Your task to perform on an android device: open app "Adobe Express: Graphic Design" Image 0: 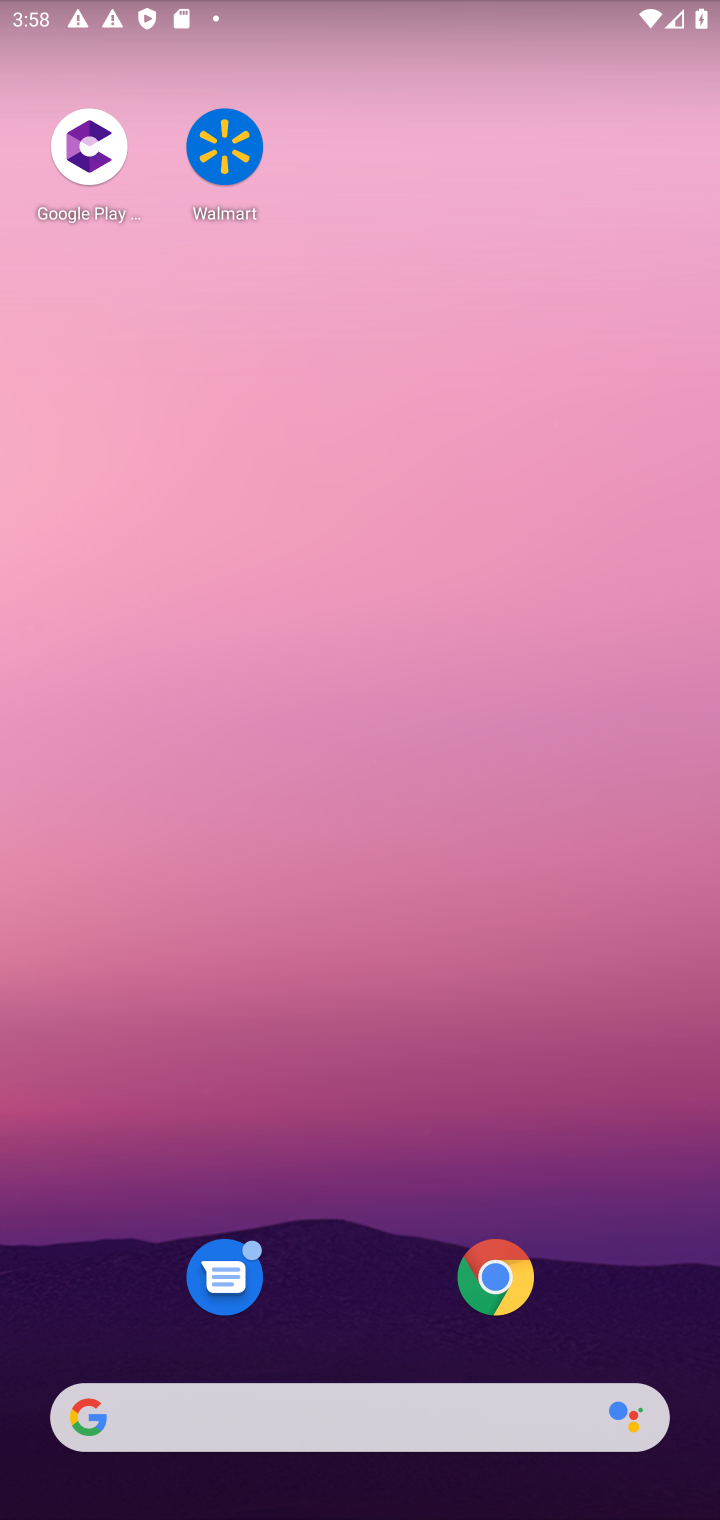
Step 0: drag from (334, 449) to (532, 12)
Your task to perform on an android device: open app "Adobe Express: Graphic Design" Image 1: 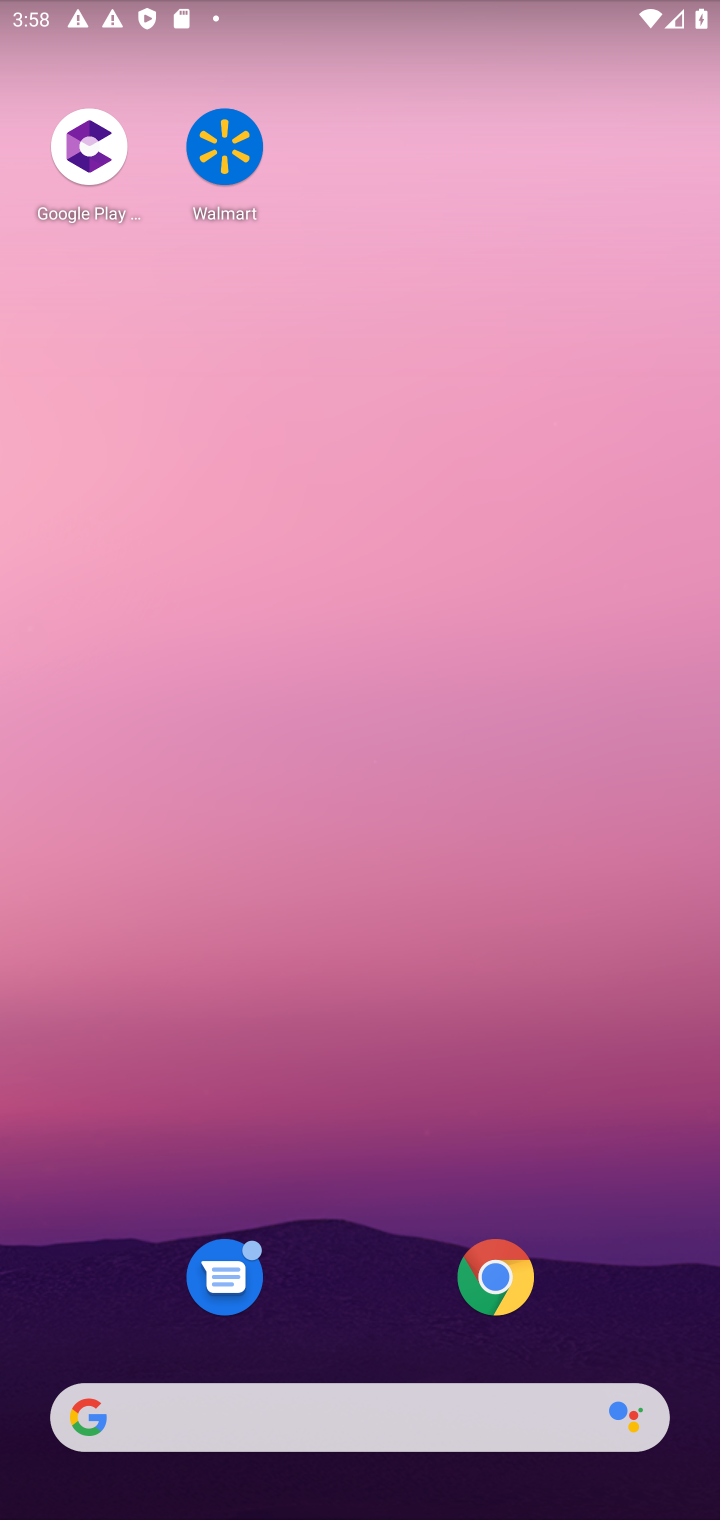
Step 1: drag from (381, 1177) to (429, 39)
Your task to perform on an android device: open app "Adobe Express: Graphic Design" Image 2: 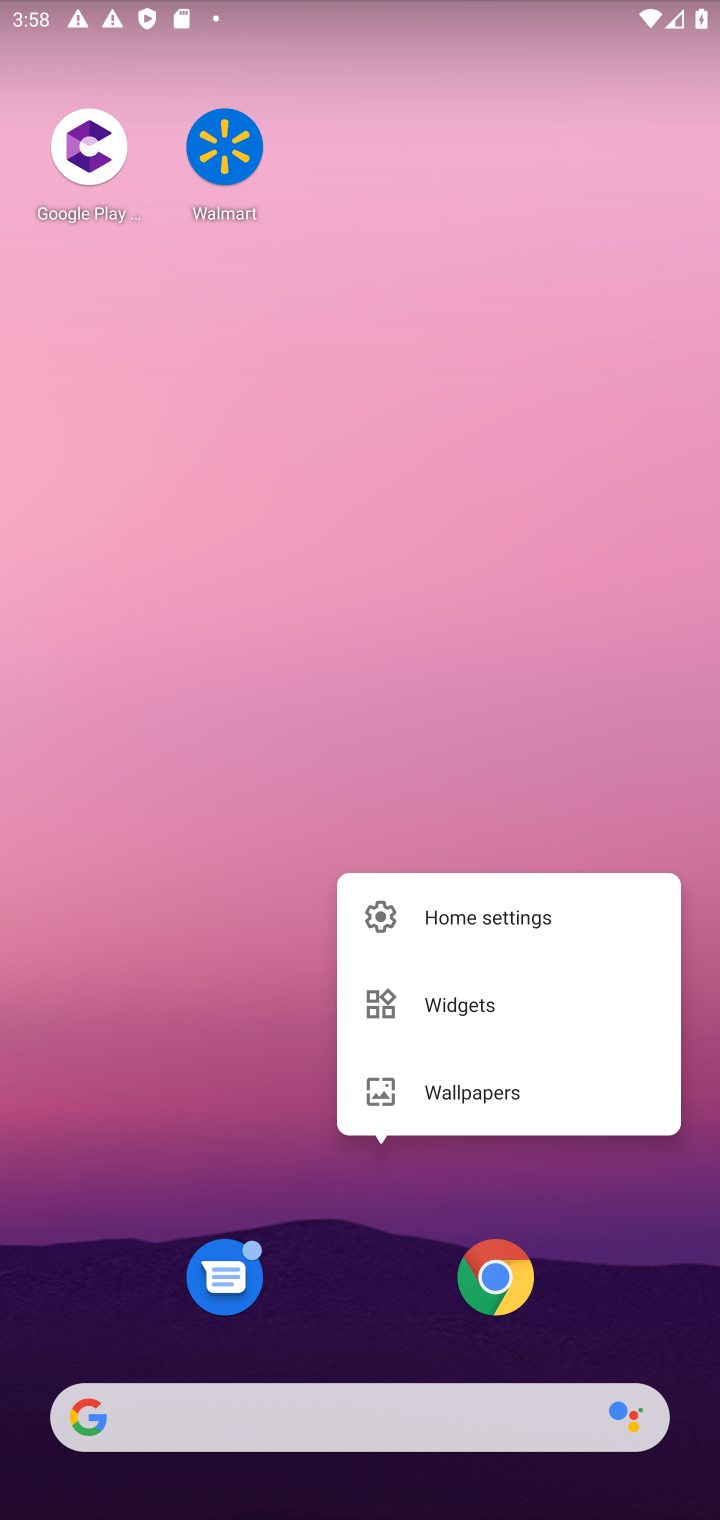
Step 2: drag from (288, 1053) to (370, 17)
Your task to perform on an android device: open app "Adobe Express: Graphic Design" Image 3: 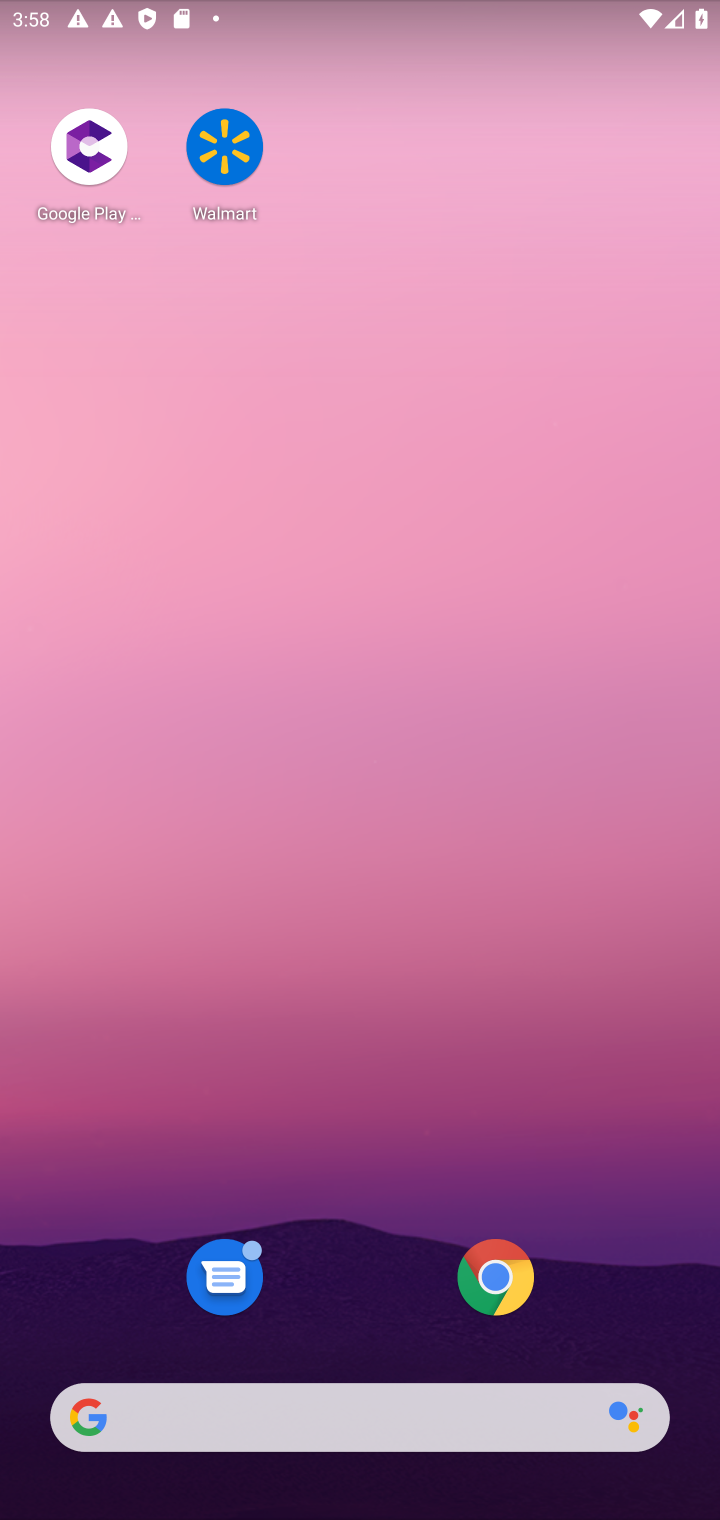
Step 3: drag from (334, 1341) to (430, 24)
Your task to perform on an android device: open app "Adobe Express: Graphic Design" Image 4: 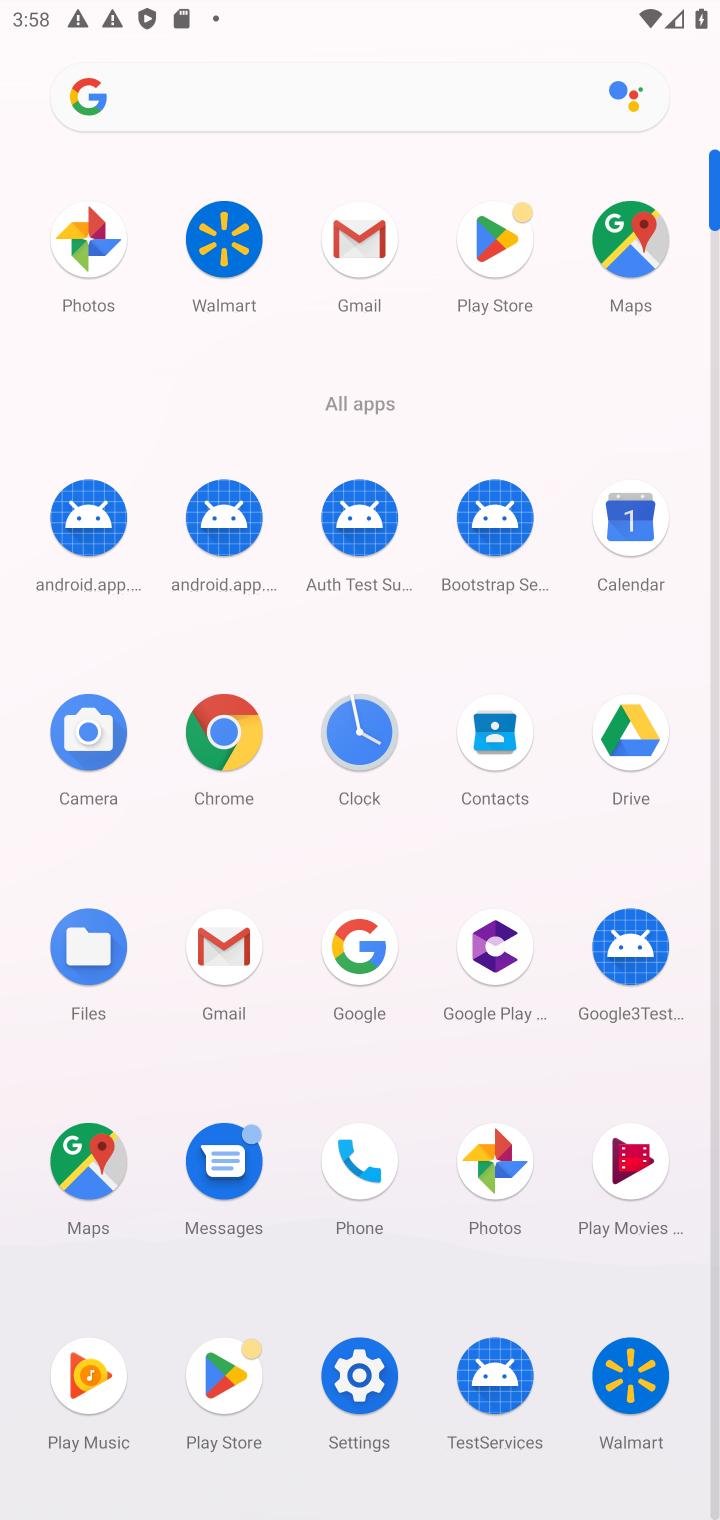
Step 4: click (225, 1401)
Your task to perform on an android device: open app "Adobe Express: Graphic Design" Image 5: 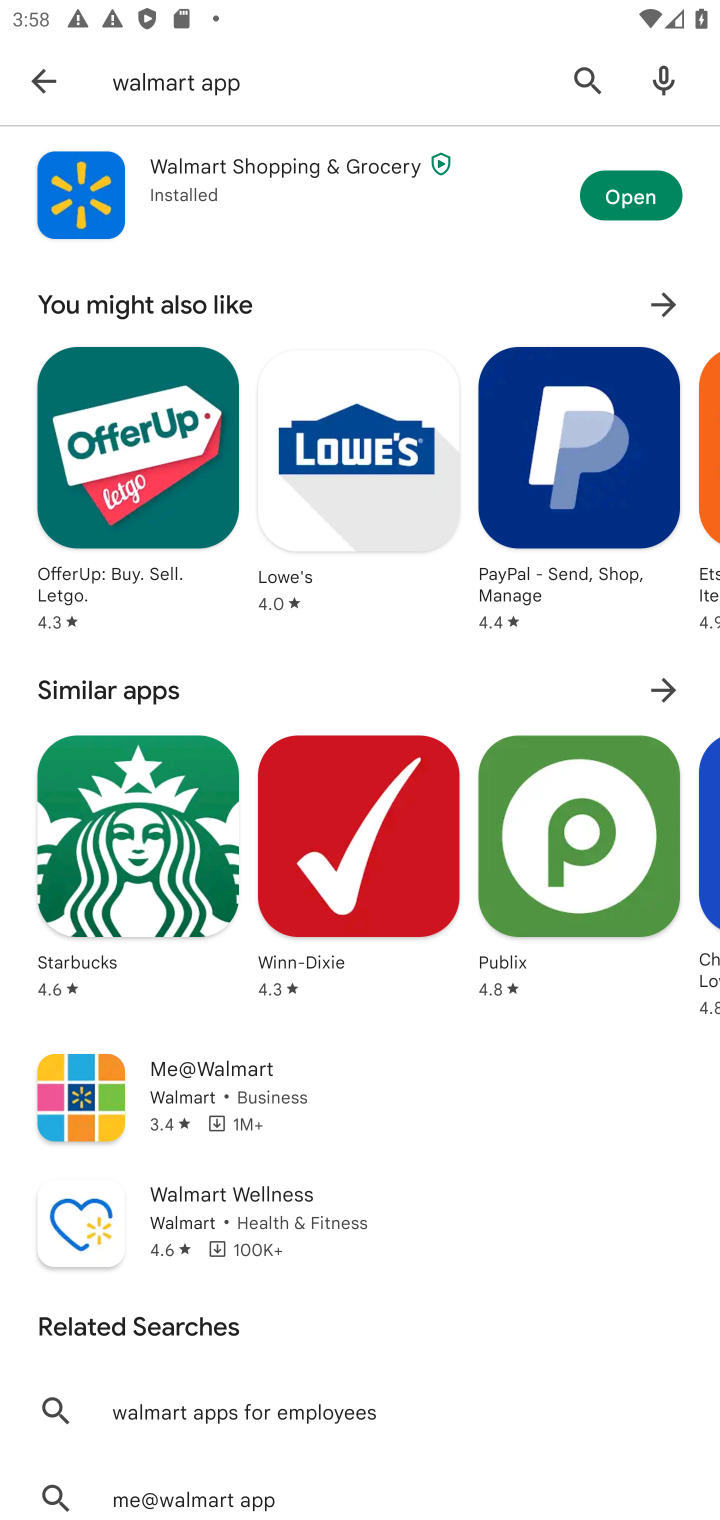
Step 5: click (262, 75)
Your task to perform on an android device: open app "Adobe Express: Graphic Design" Image 6: 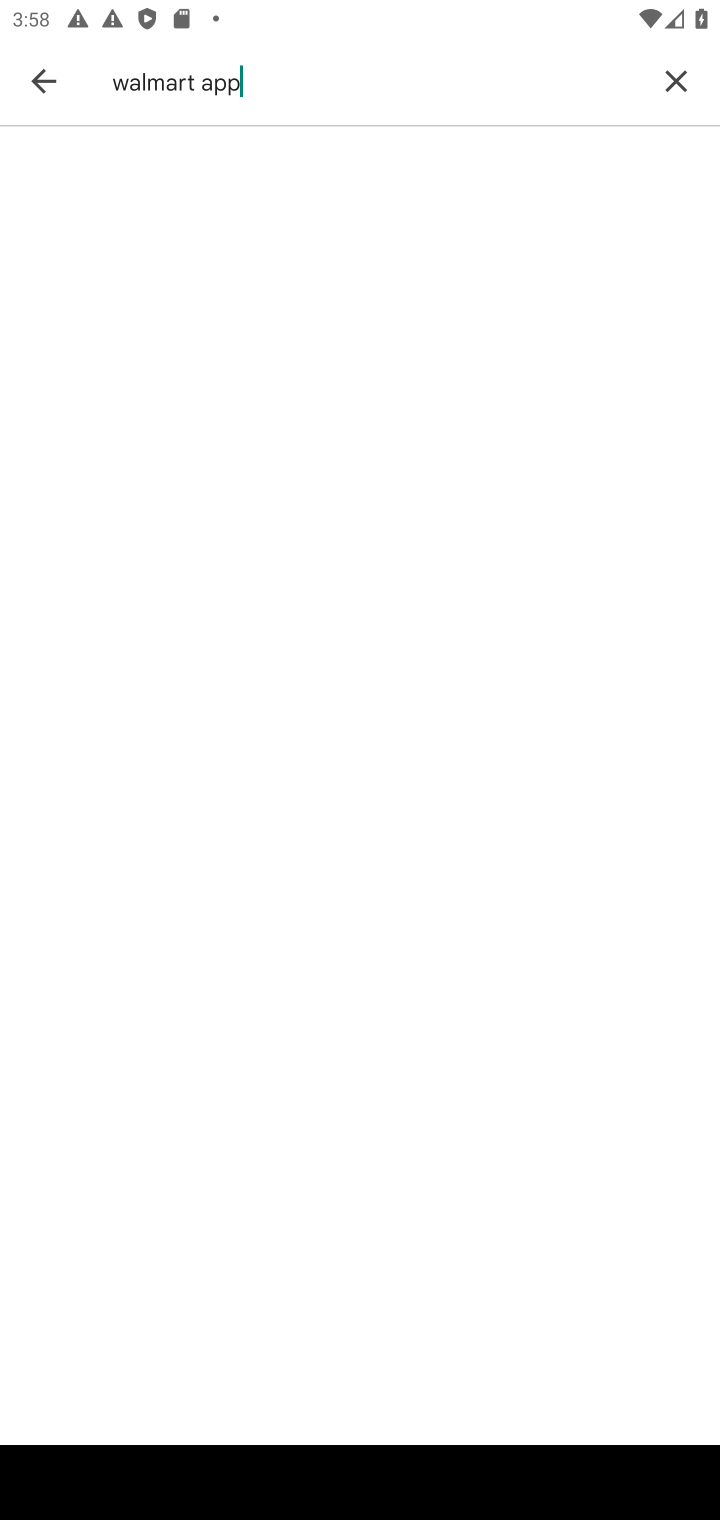
Step 6: click (701, 68)
Your task to perform on an android device: open app "Adobe Express: Graphic Design" Image 7: 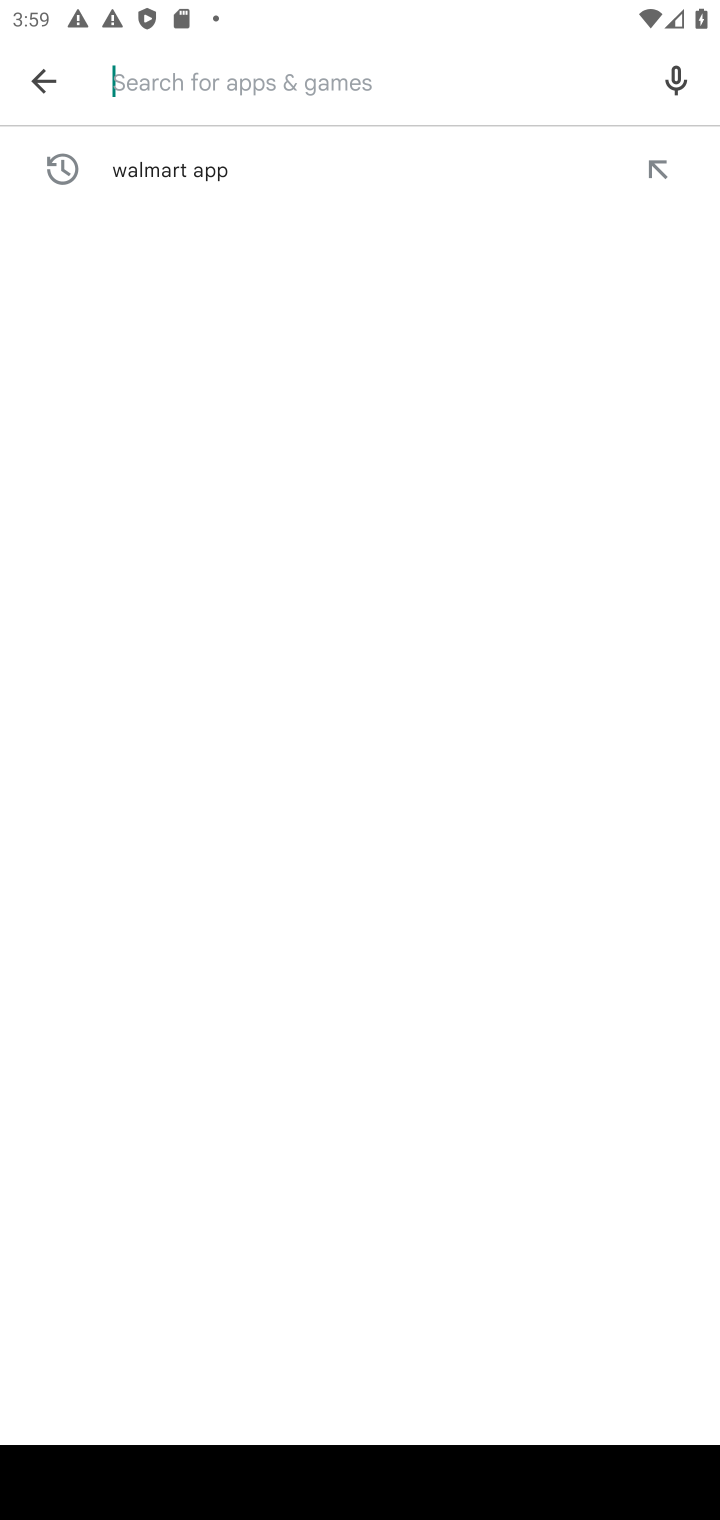
Step 7: type "Adobe Express"
Your task to perform on an android device: open app "Adobe Express: Graphic Design" Image 8: 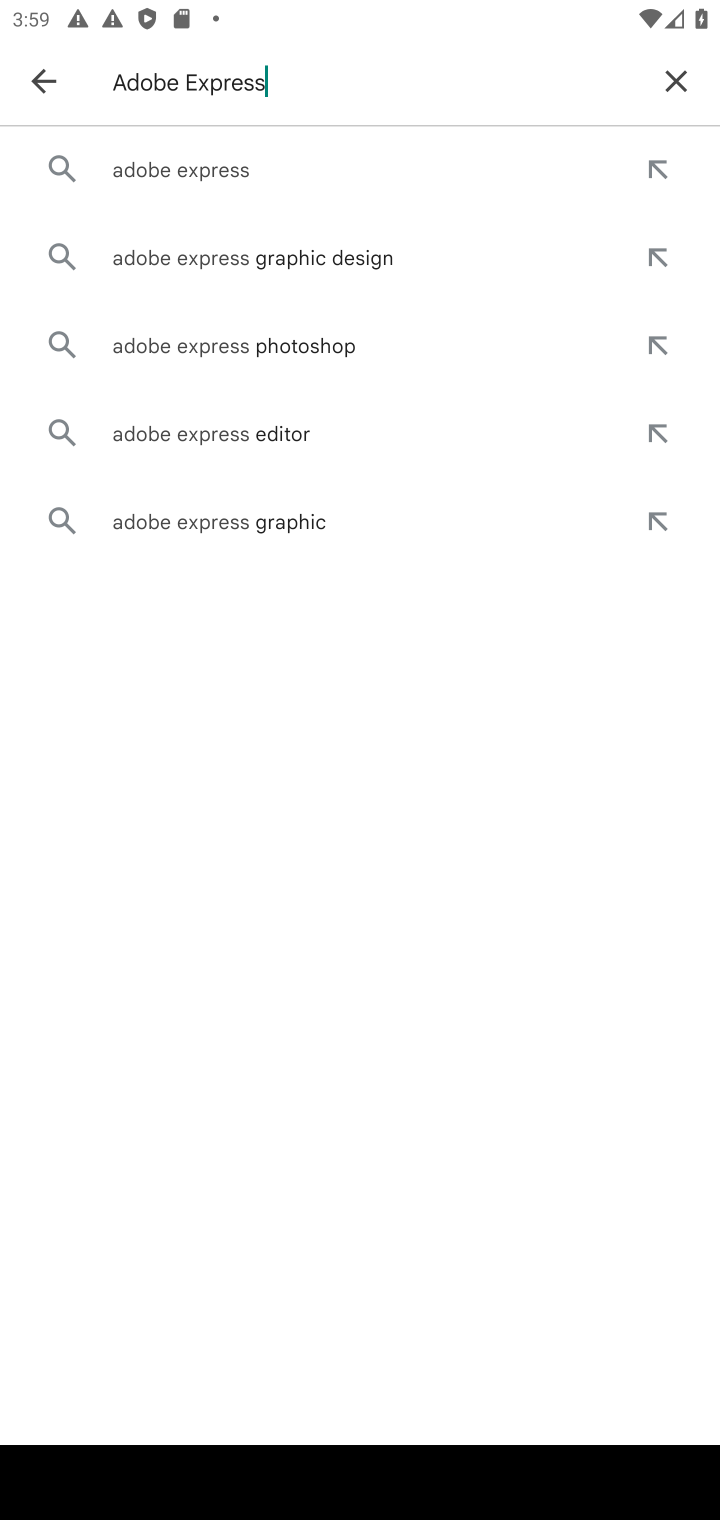
Step 8: click (227, 187)
Your task to perform on an android device: open app "Adobe Express: Graphic Design" Image 9: 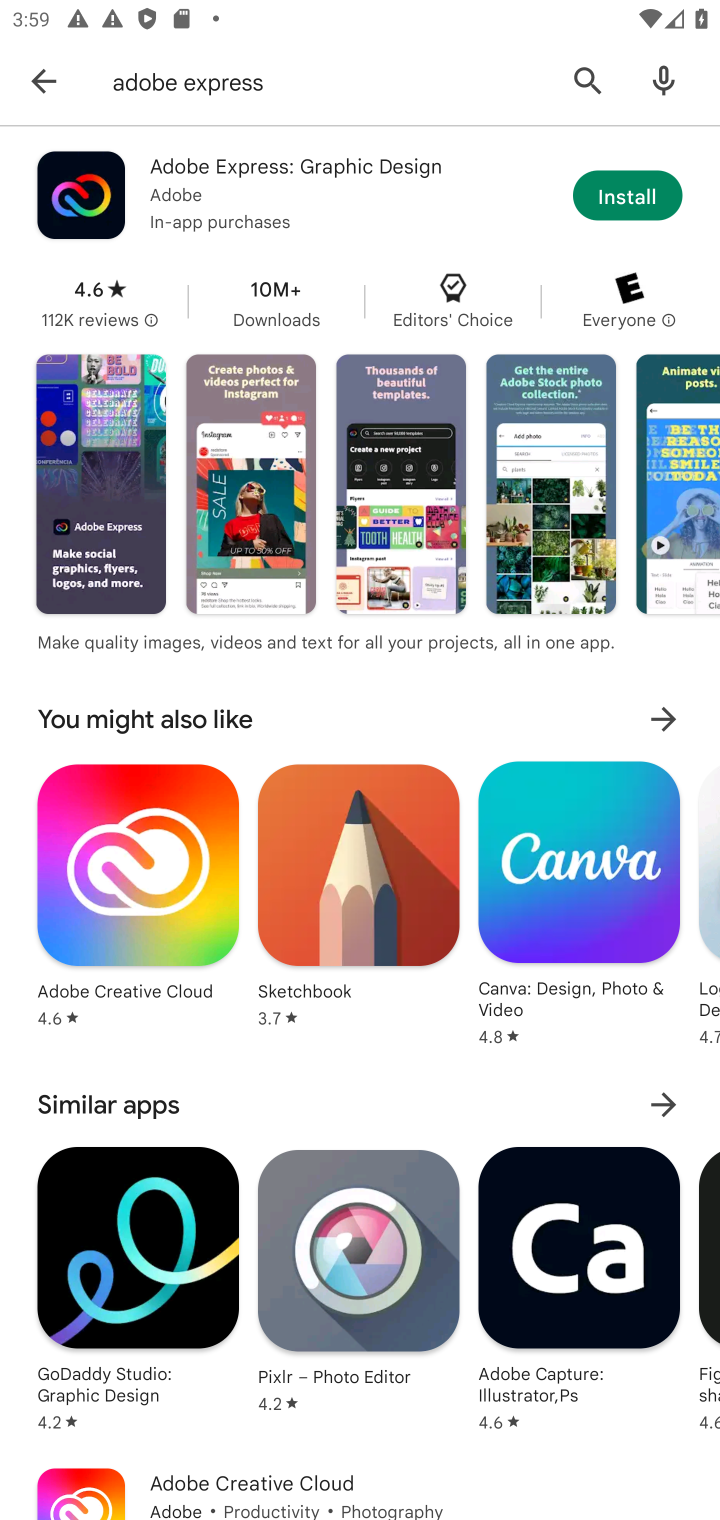
Step 9: task complete